Your task to perform on an android device: turn pop-ups on in chrome Image 0: 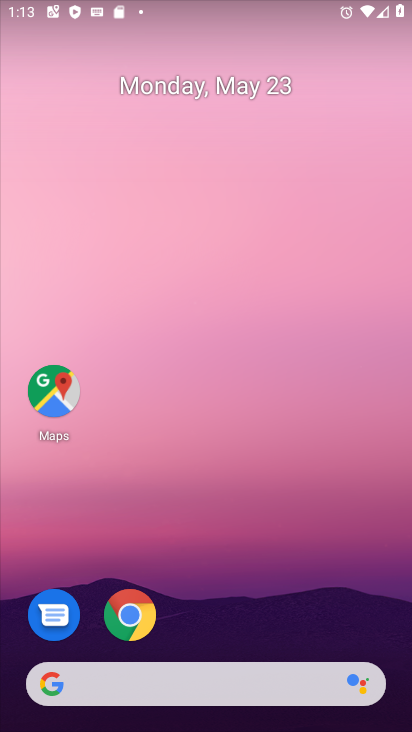
Step 0: click (132, 614)
Your task to perform on an android device: turn pop-ups on in chrome Image 1: 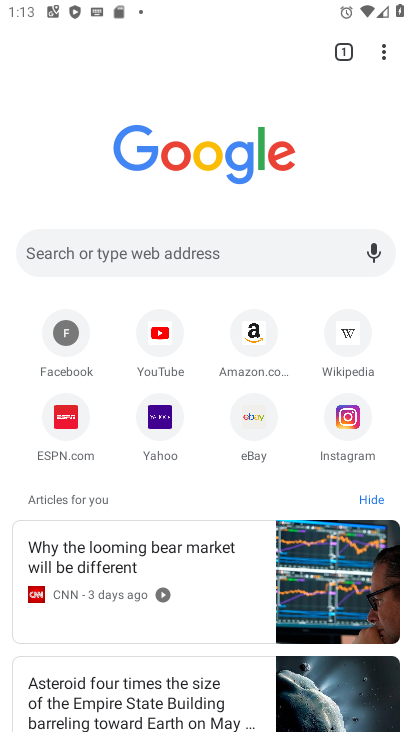
Step 1: click (385, 56)
Your task to perform on an android device: turn pop-ups on in chrome Image 2: 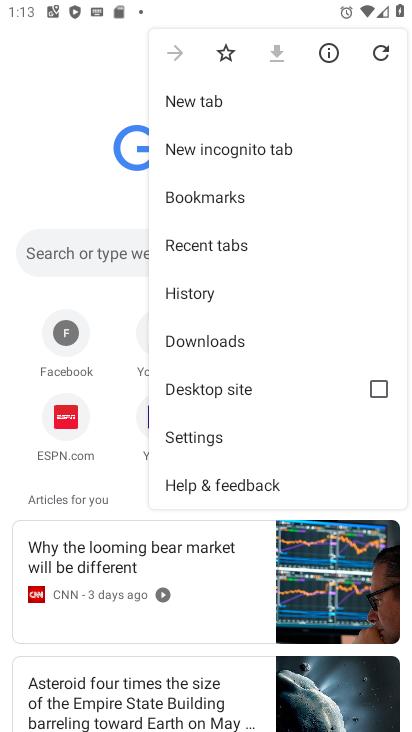
Step 2: click (189, 434)
Your task to perform on an android device: turn pop-ups on in chrome Image 3: 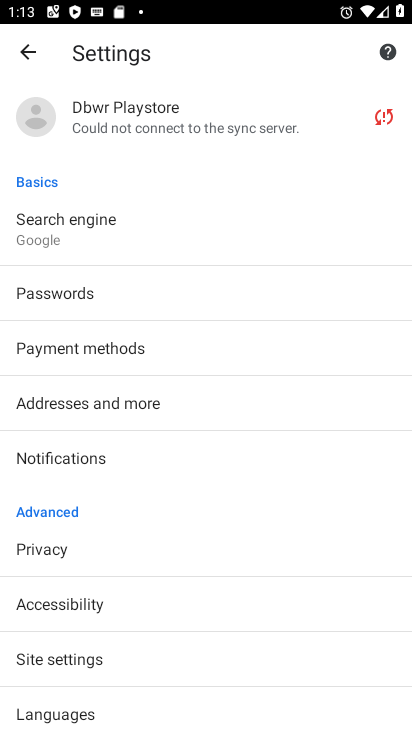
Step 3: click (55, 658)
Your task to perform on an android device: turn pop-ups on in chrome Image 4: 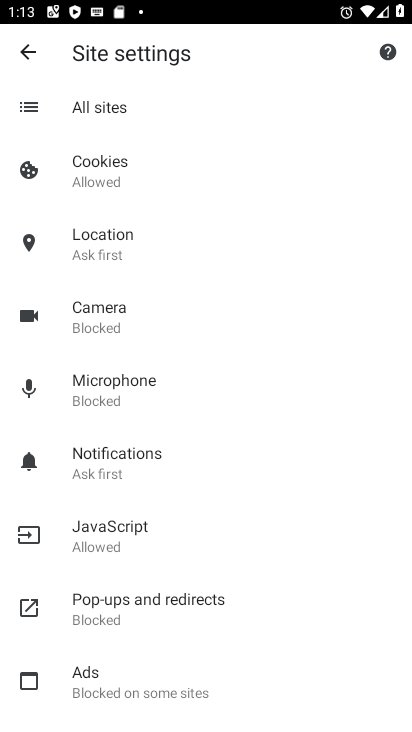
Step 4: click (115, 605)
Your task to perform on an android device: turn pop-ups on in chrome Image 5: 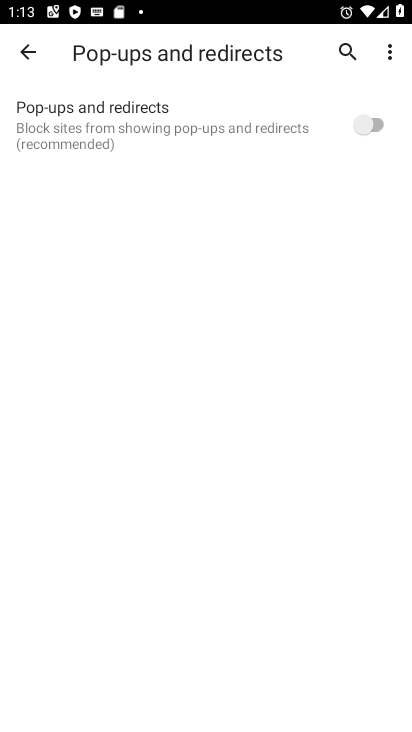
Step 5: click (375, 120)
Your task to perform on an android device: turn pop-ups on in chrome Image 6: 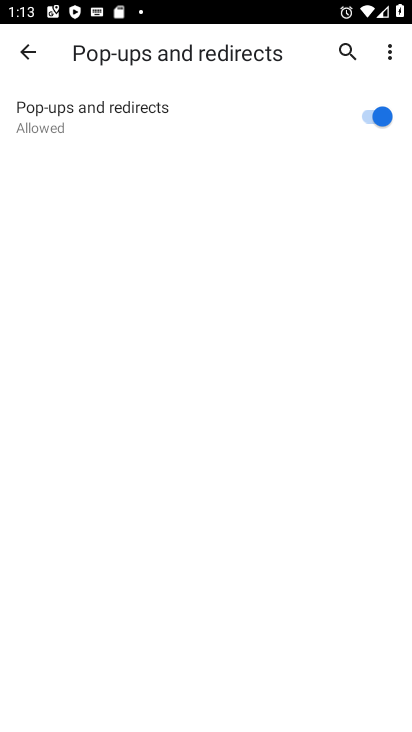
Step 6: task complete